Your task to perform on an android device: Open calendar and show me the first week of next month Image 0: 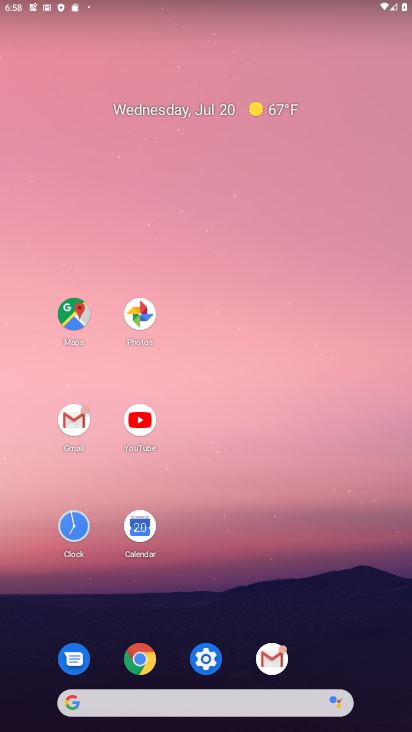
Step 0: click (138, 526)
Your task to perform on an android device: Open calendar and show me the first week of next month Image 1: 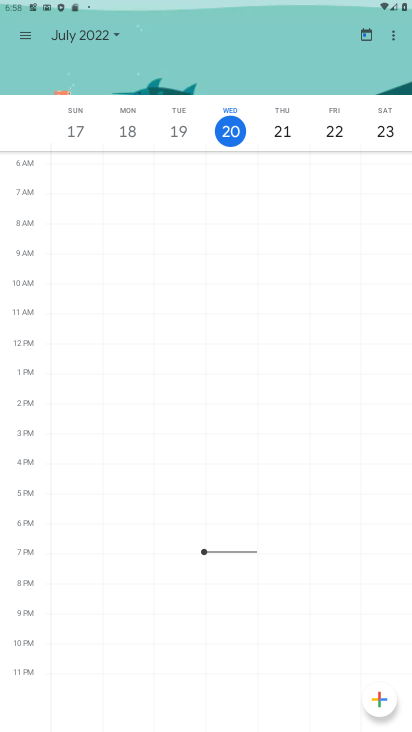
Step 1: click (29, 29)
Your task to perform on an android device: Open calendar and show me the first week of next month Image 2: 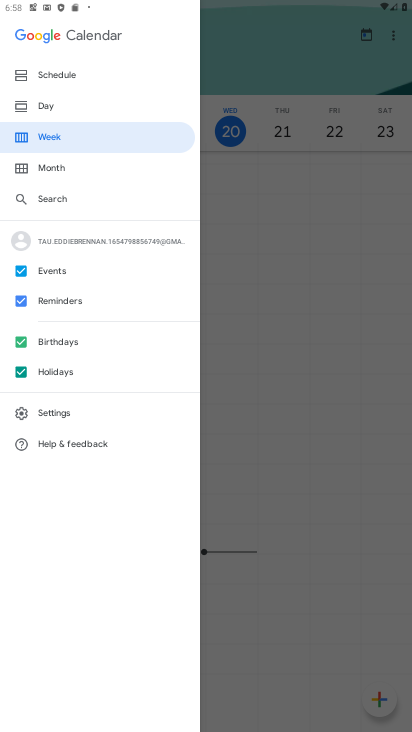
Step 2: click (42, 137)
Your task to perform on an android device: Open calendar and show me the first week of next month Image 3: 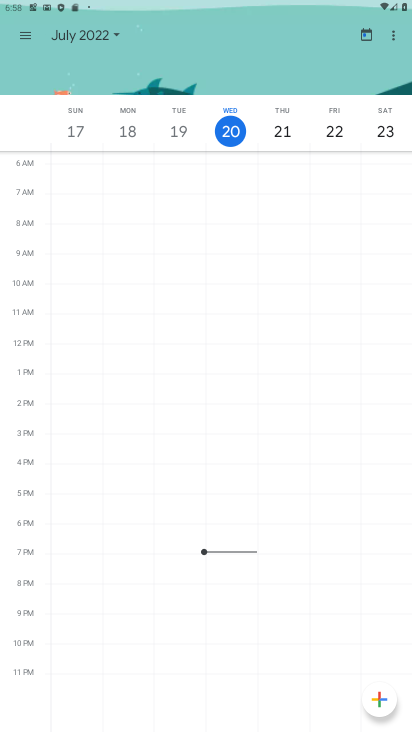
Step 3: click (119, 35)
Your task to perform on an android device: Open calendar and show me the first week of next month Image 4: 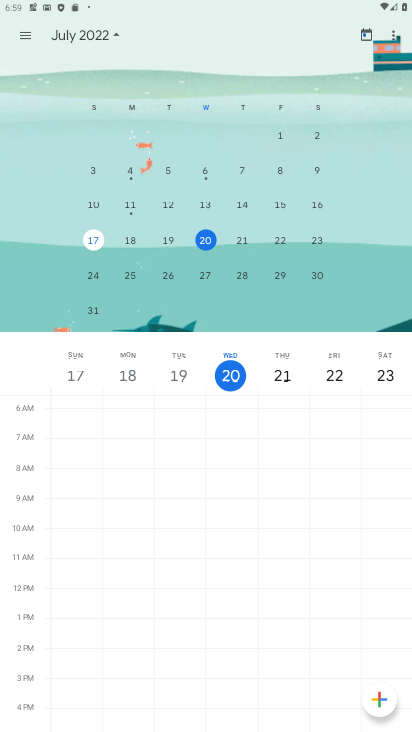
Step 4: drag from (367, 210) to (2, 221)
Your task to perform on an android device: Open calendar and show me the first week of next month Image 5: 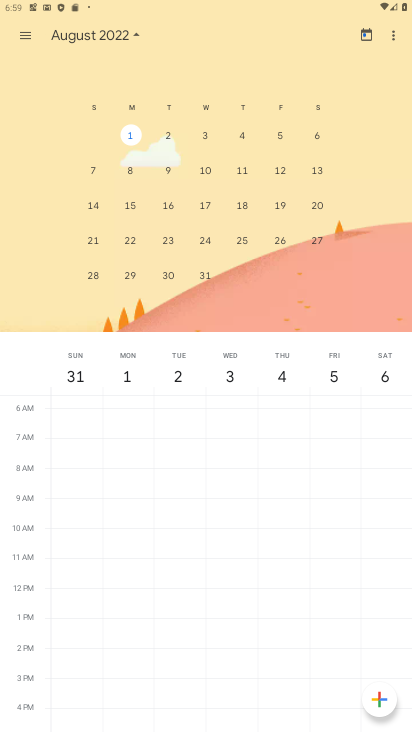
Step 5: click (135, 134)
Your task to perform on an android device: Open calendar and show me the first week of next month Image 6: 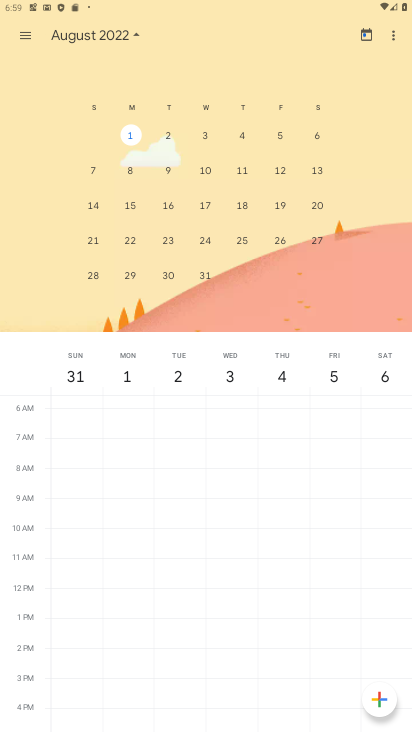
Step 6: task complete